Your task to perform on an android device: Show me productivity apps on the Play Store Image 0: 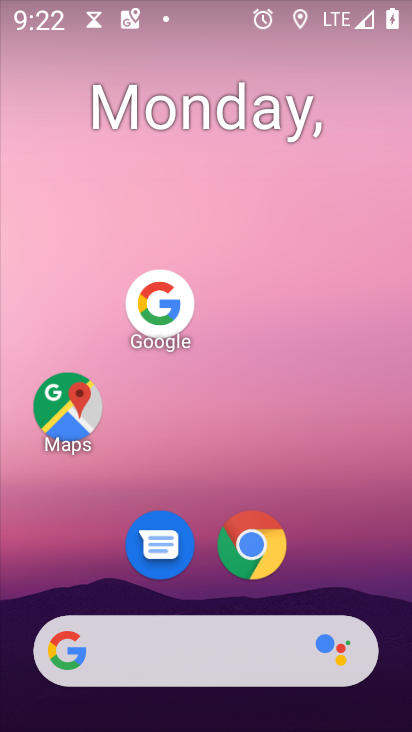
Step 0: press home button
Your task to perform on an android device: Show me productivity apps on the Play Store Image 1: 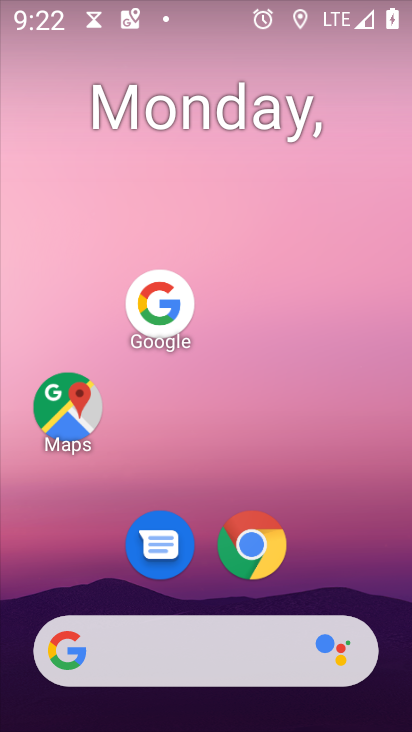
Step 1: drag from (254, 303) to (291, 97)
Your task to perform on an android device: Show me productivity apps on the Play Store Image 2: 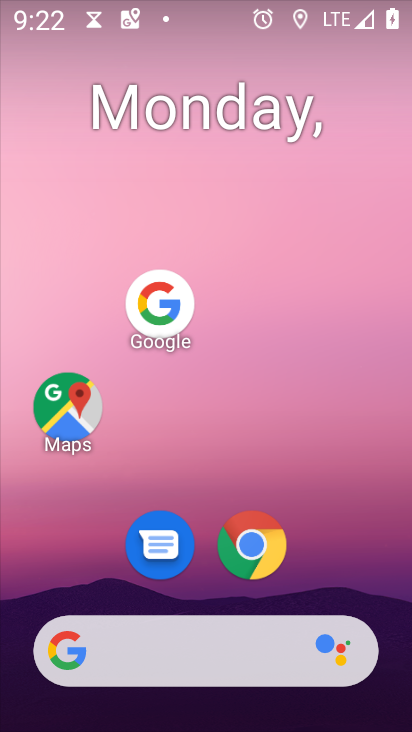
Step 2: drag from (175, 649) to (317, 92)
Your task to perform on an android device: Show me productivity apps on the Play Store Image 3: 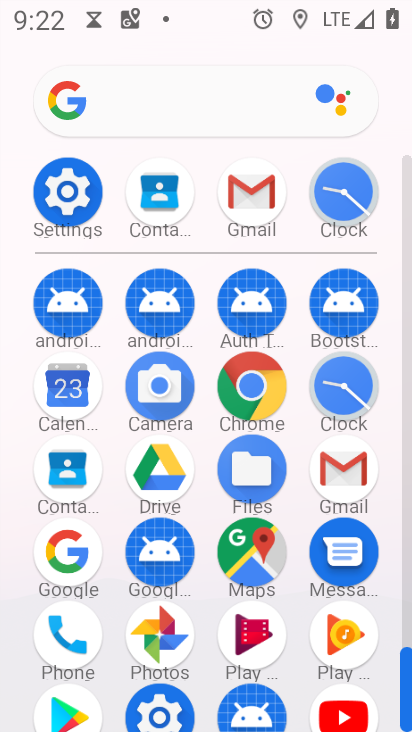
Step 3: drag from (201, 622) to (296, 235)
Your task to perform on an android device: Show me productivity apps on the Play Store Image 4: 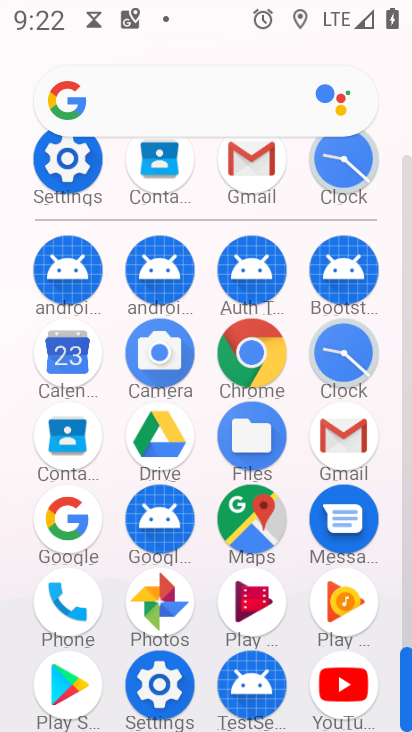
Step 4: click (69, 687)
Your task to perform on an android device: Show me productivity apps on the Play Store Image 5: 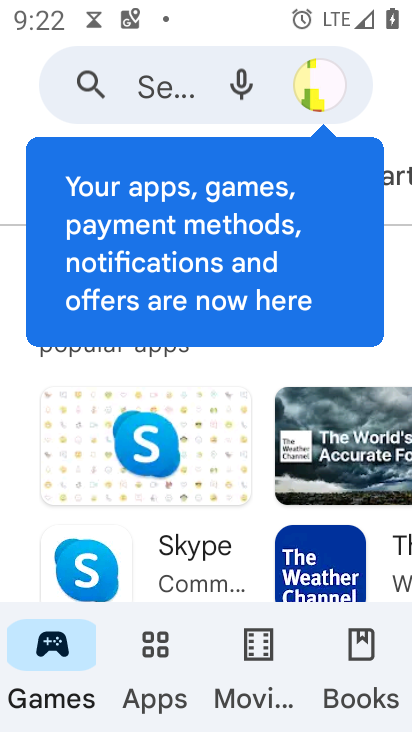
Step 5: click (165, 687)
Your task to perform on an android device: Show me productivity apps on the Play Store Image 6: 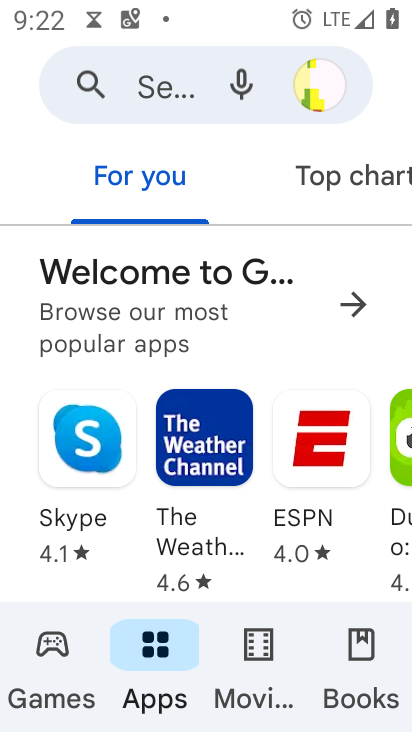
Step 6: drag from (356, 182) to (123, 173)
Your task to perform on an android device: Show me productivity apps on the Play Store Image 7: 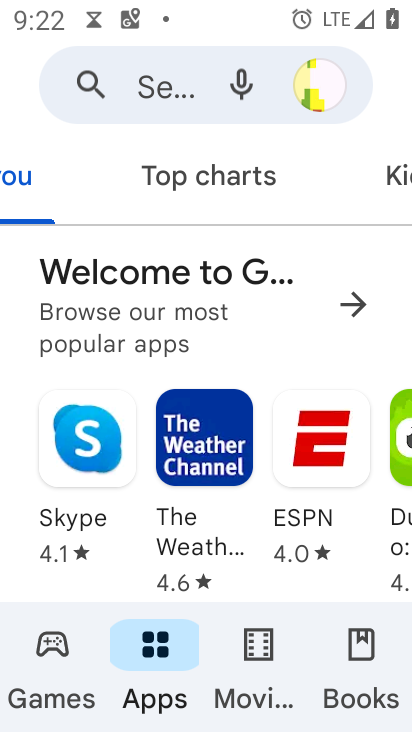
Step 7: drag from (381, 184) to (134, 206)
Your task to perform on an android device: Show me productivity apps on the Play Store Image 8: 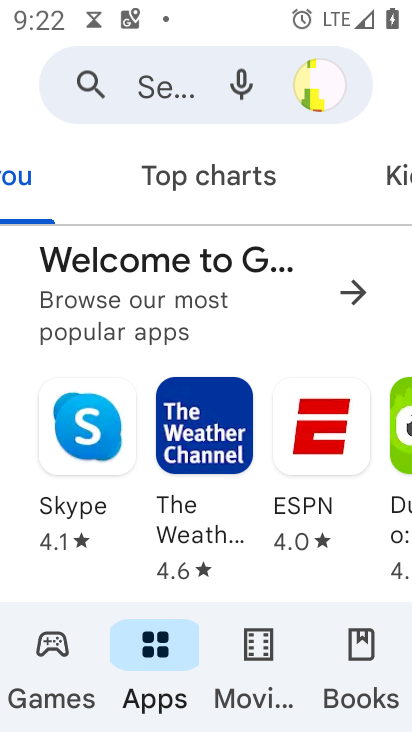
Step 8: drag from (390, 181) to (136, 199)
Your task to perform on an android device: Show me productivity apps on the Play Store Image 9: 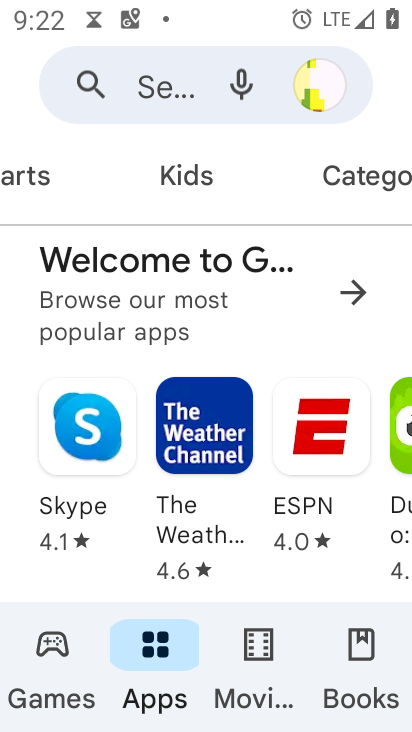
Step 9: click (356, 180)
Your task to perform on an android device: Show me productivity apps on the Play Store Image 10: 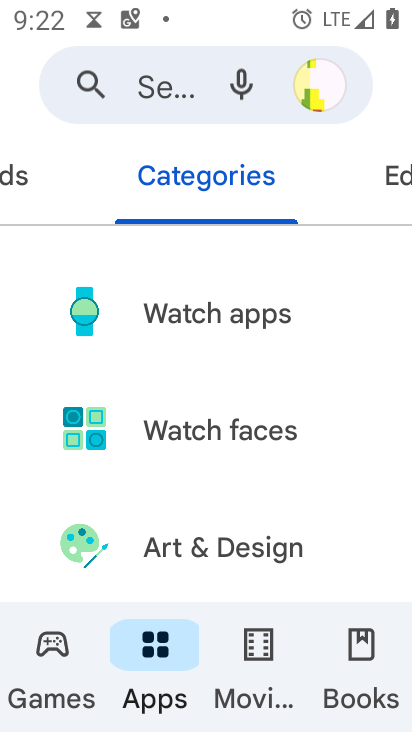
Step 10: drag from (341, 576) to (351, 76)
Your task to perform on an android device: Show me productivity apps on the Play Store Image 11: 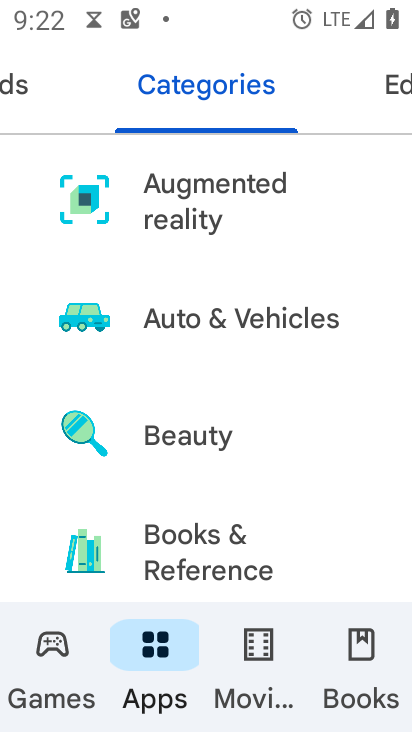
Step 11: drag from (313, 573) to (317, 97)
Your task to perform on an android device: Show me productivity apps on the Play Store Image 12: 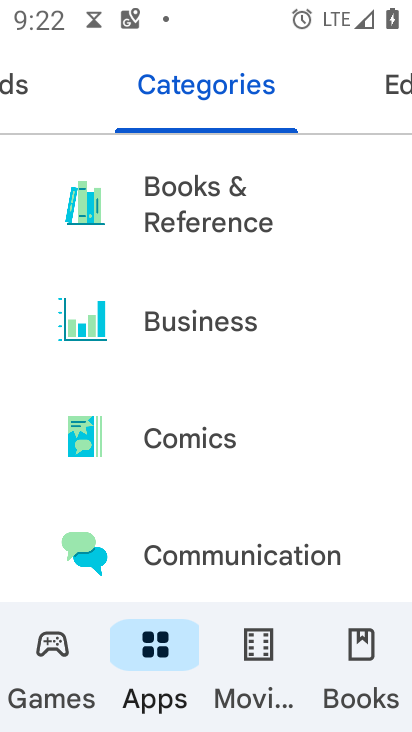
Step 12: drag from (295, 583) to (275, 5)
Your task to perform on an android device: Show me productivity apps on the Play Store Image 13: 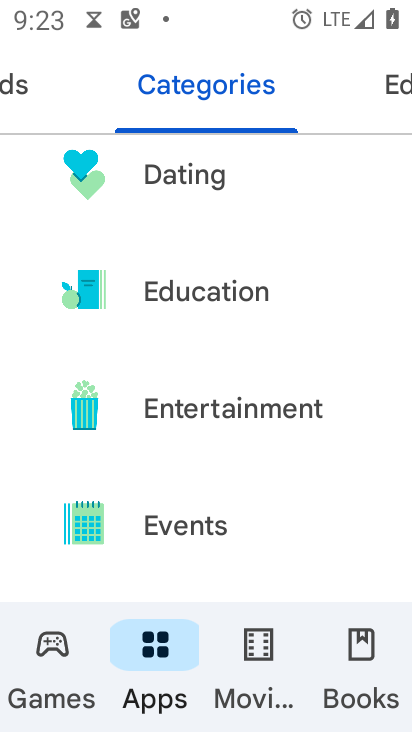
Step 13: drag from (305, 555) to (339, 4)
Your task to perform on an android device: Show me productivity apps on the Play Store Image 14: 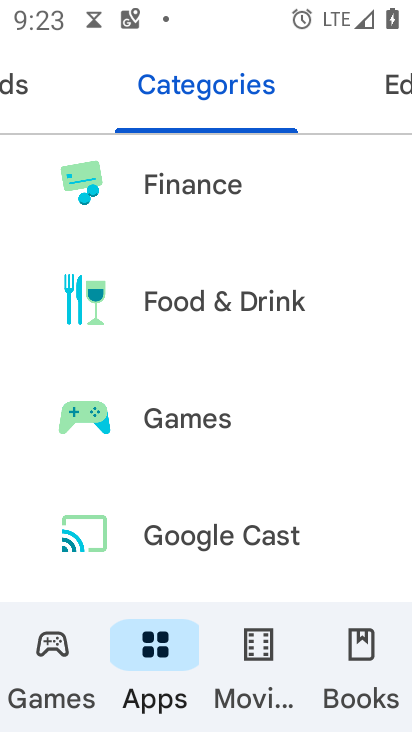
Step 14: drag from (297, 555) to (305, 24)
Your task to perform on an android device: Show me productivity apps on the Play Store Image 15: 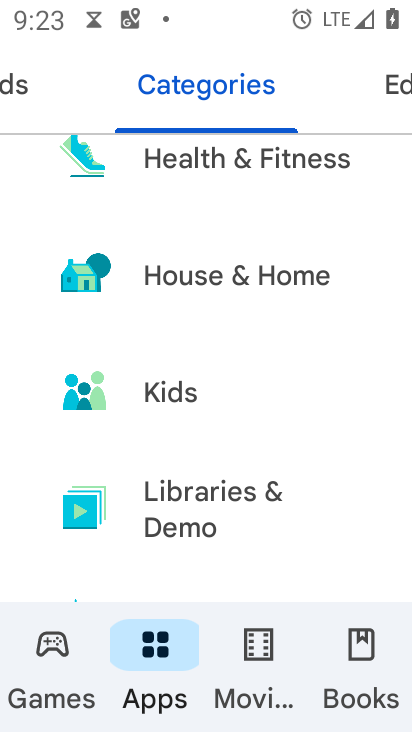
Step 15: drag from (291, 577) to (255, 62)
Your task to perform on an android device: Show me productivity apps on the Play Store Image 16: 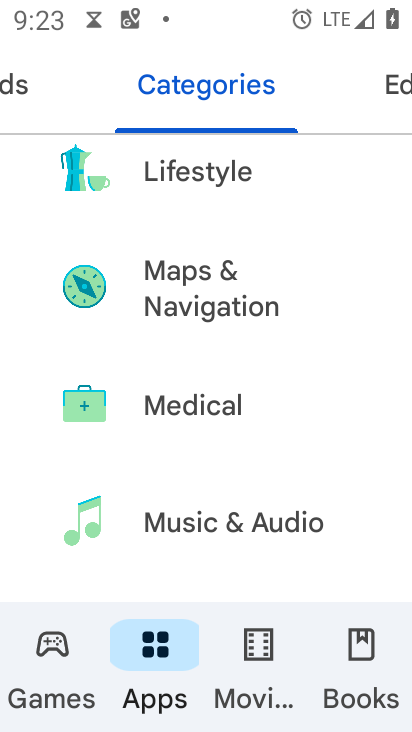
Step 16: drag from (268, 560) to (246, 50)
Your task to perform on an android device: Show me productivity apps on the Play Store Image 17: 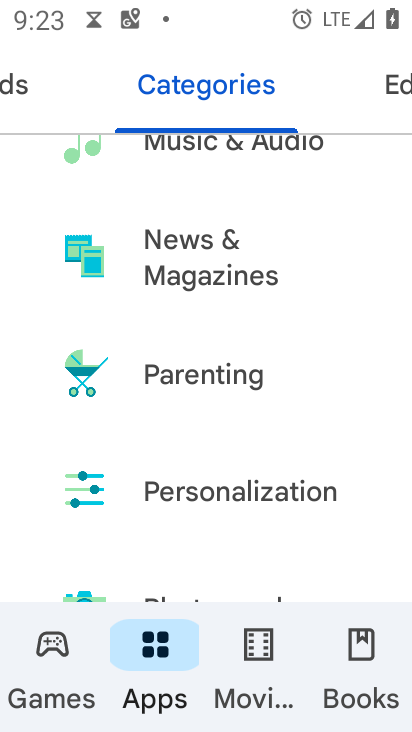
Step 17: drag from (290, 534) to (298, 90)
Your task to perform on an android device: Show me productivity apps on the Play Store Image 18: 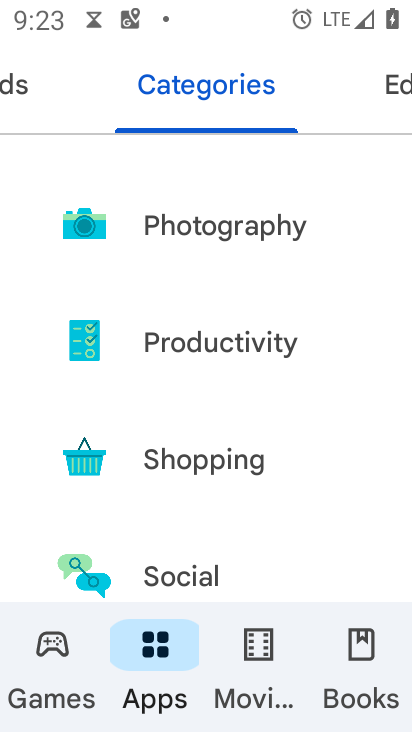
Step 18: click (233, 344)
Your task to perform on an android device: Show me productivity apps on the Play Store Image 19: 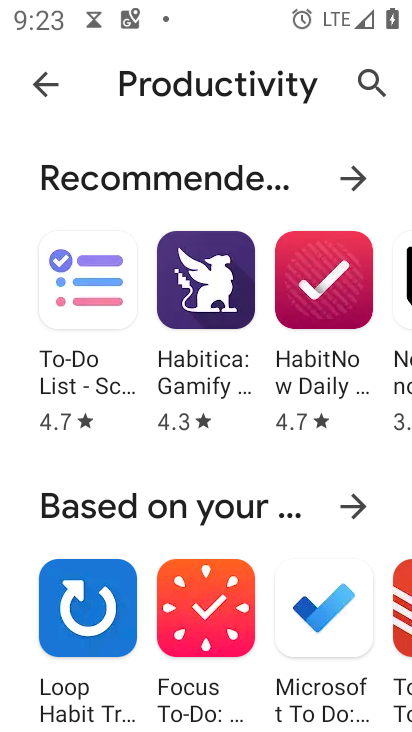
Step 19: task complete